Your task to perform on an android device: change the clock style Image 0: 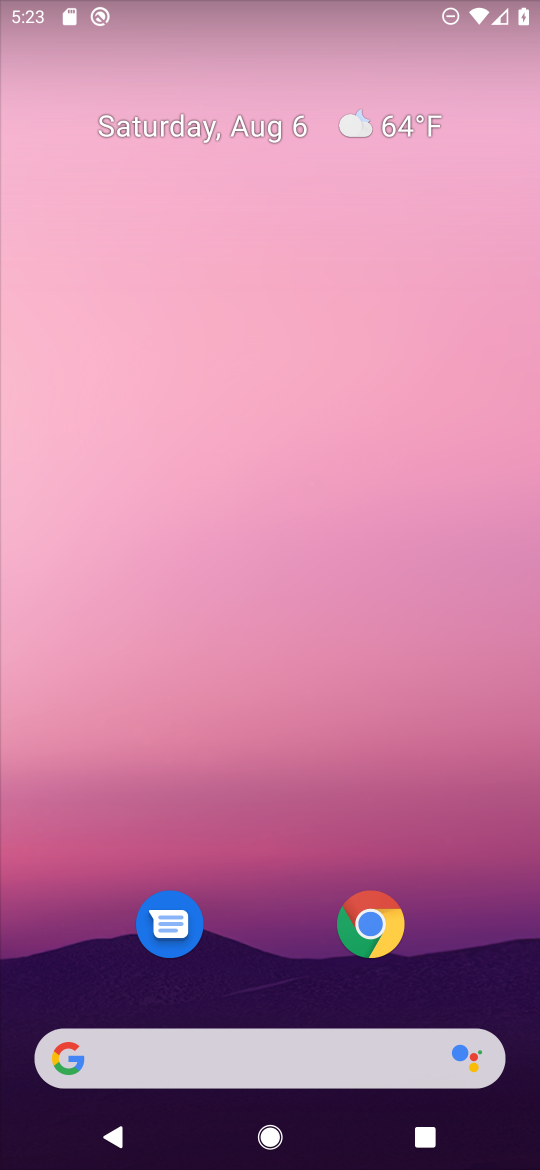
Step 0: drag from (263, 951) to (237, 215)
Your task to perform on an android device: change the clock style Image 1: 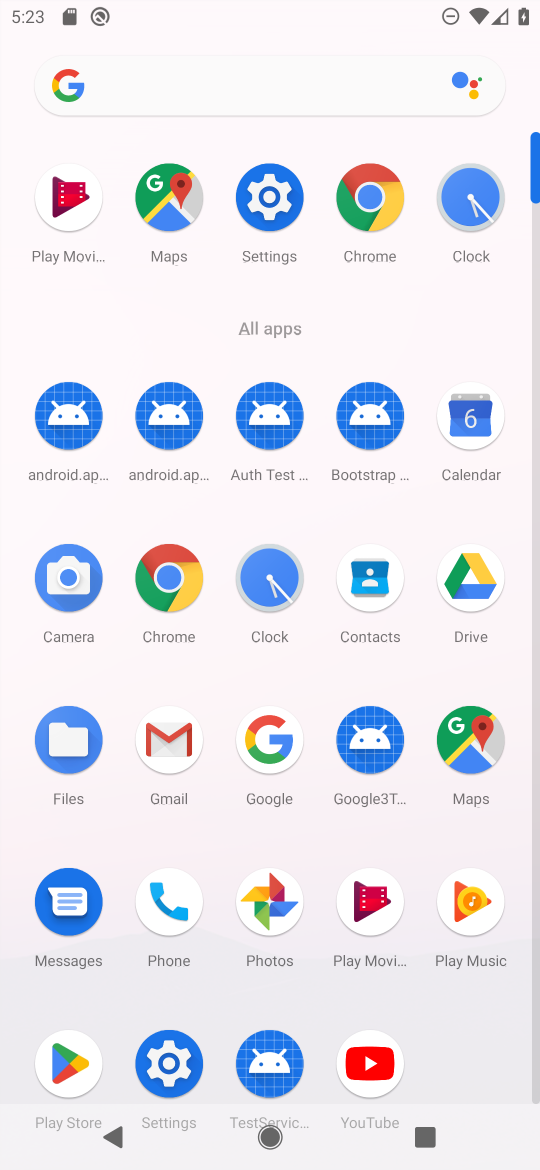
Step 1: click (461, 191)
Your task to perform on an android device: change the clock style Image 2: 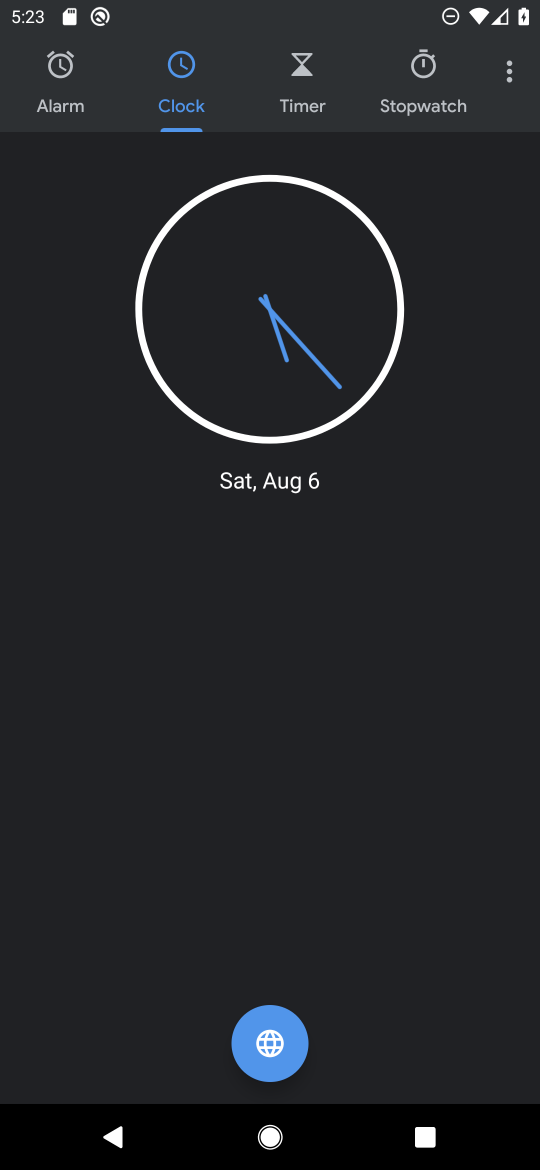
Step 2: click (506, 74)
Your task to perform on an android device: change the clock style Image 3: 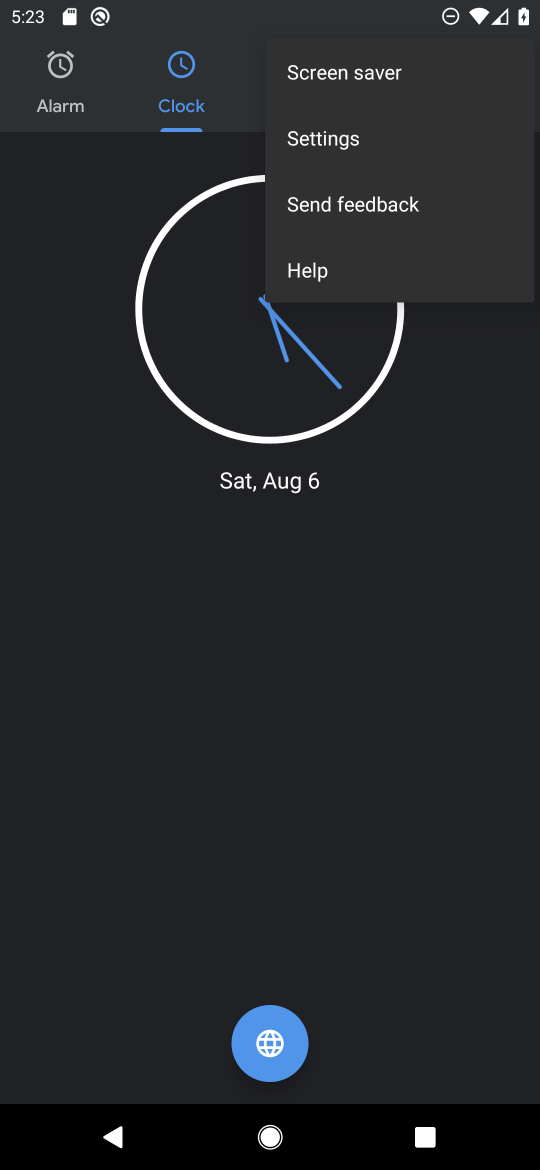
Step 3: click (340, 124)
Your task to perform on an android device: change the clock style Image 4: 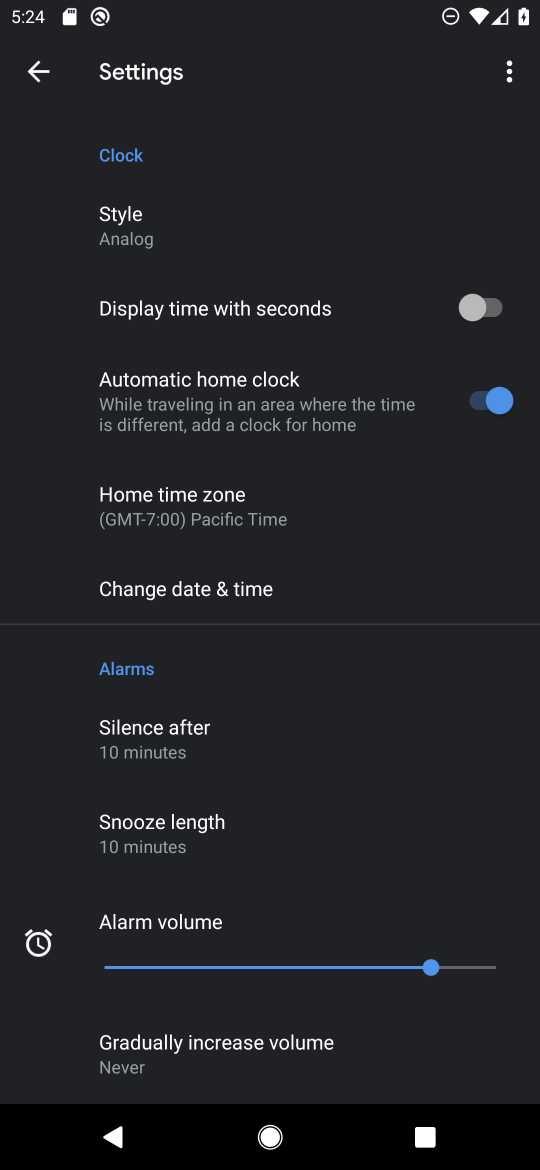
Step 4: click (123, 216)
Your task to perform on an android device: change the clock style Image 5: 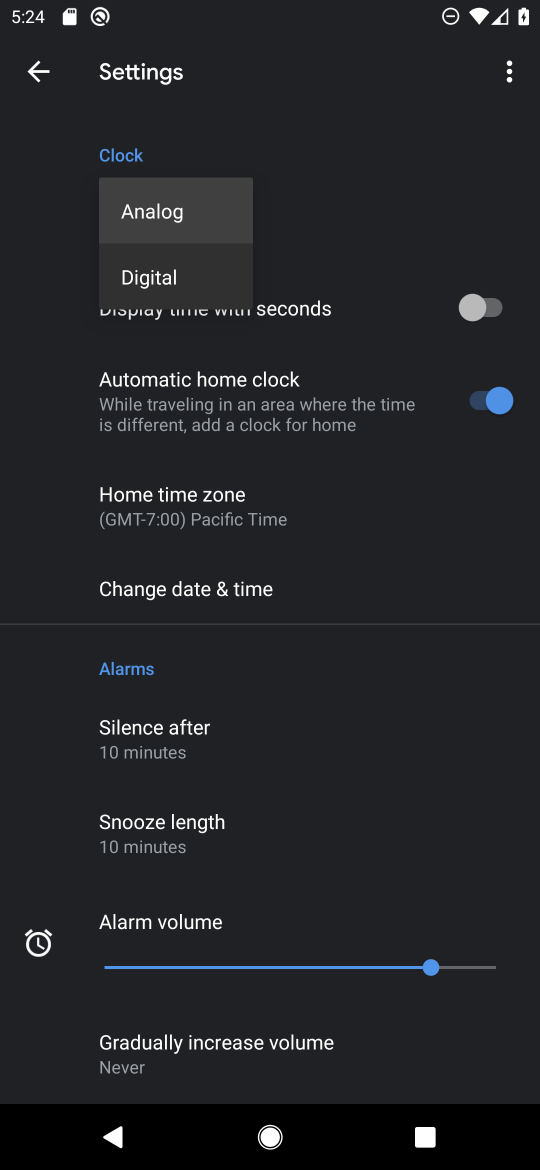
Step 5: click (152, 264)
Your task to perform on an android device: change the clock style Image 6: 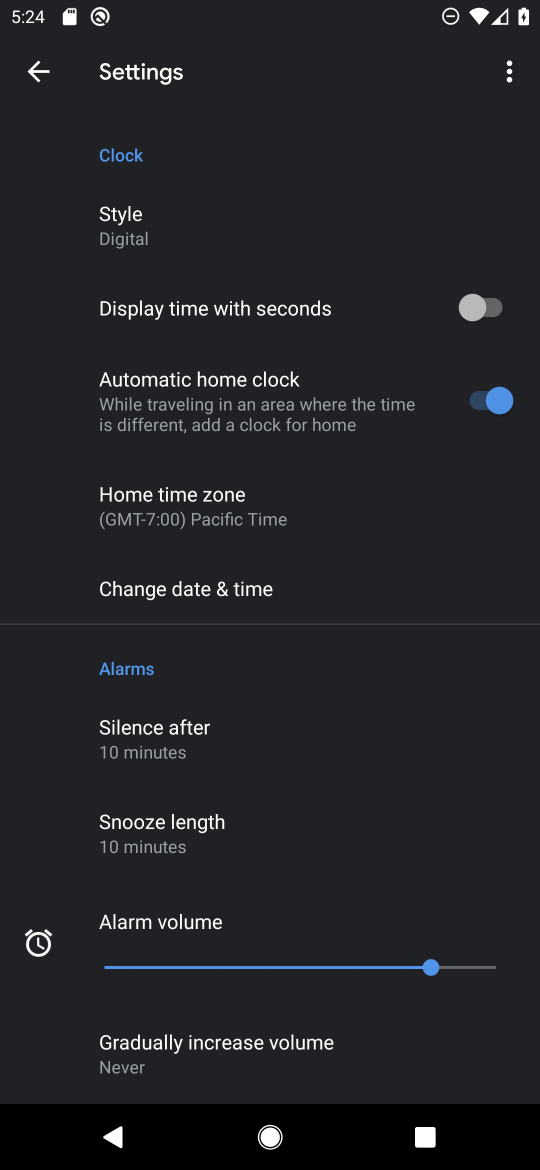
Step 6: task complete